Your task to perform on an android device: Open the map Image 0: 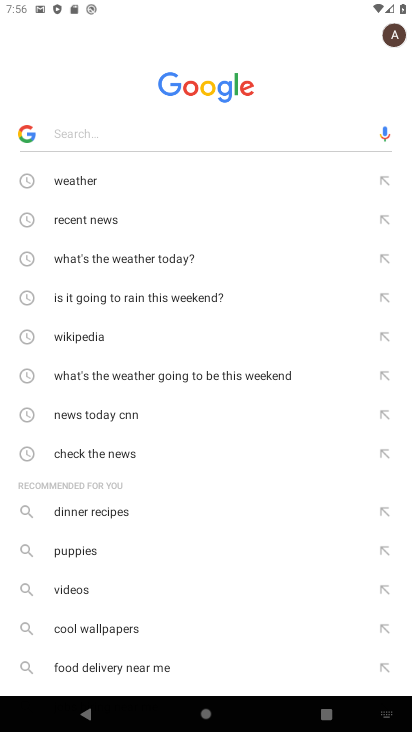
Step 0: drag from (191, 632) to (248, 279)
Your task to perform on an android device: Open the map Image 1: 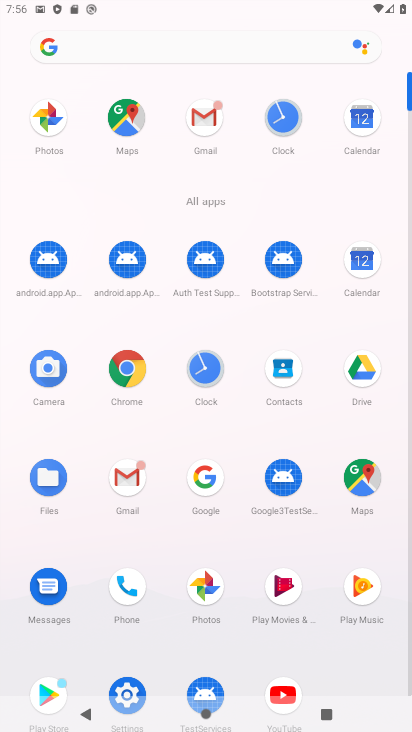
Step 1: click (366, 476)
Your task to perform on an android device: Open the map Image 2: 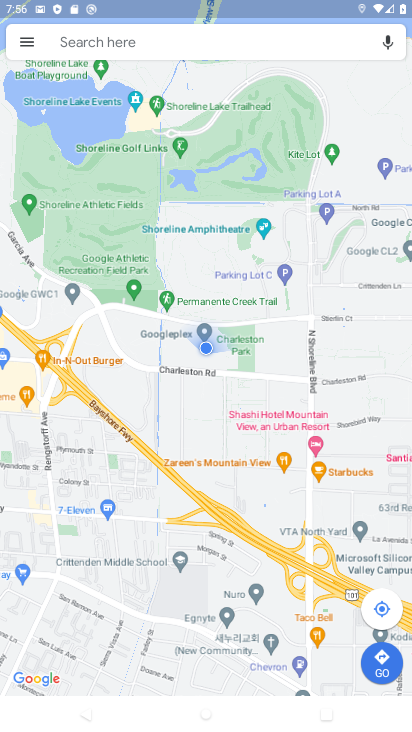
Step 2: task complete